Your task to perform on an android device: set the timer Image 0: 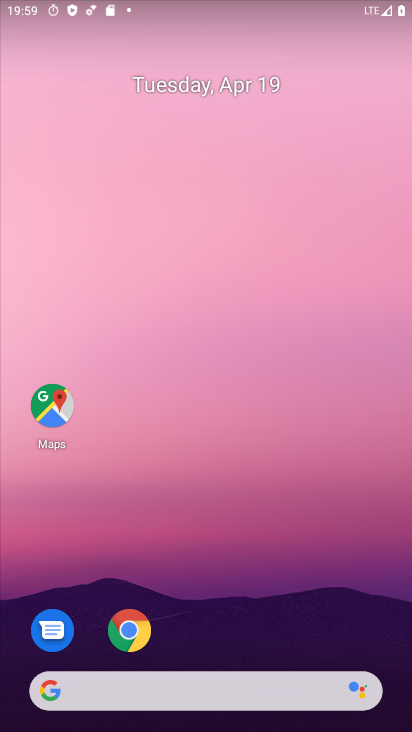
Step 0: drag from (209, 665) to (203, 0)
Your task to perform on an android device: set the timer Image 1: 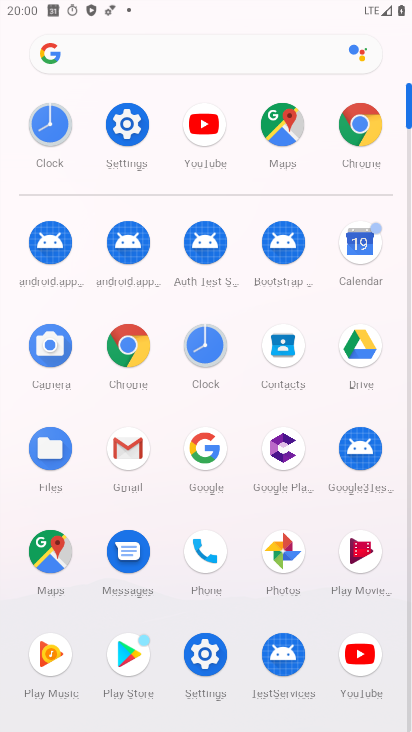
Step 1: click (207, 341)
Your task to perform on an android device: set the timer Image 2: 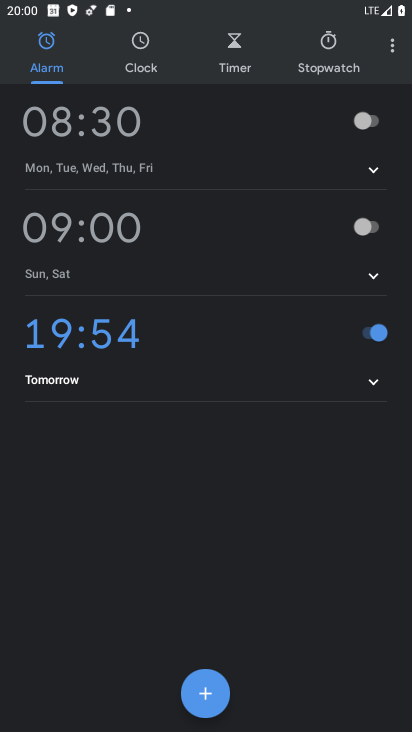
Step 2: click (217, 65)
Your task to perform on an android device: set the timer Image 3: 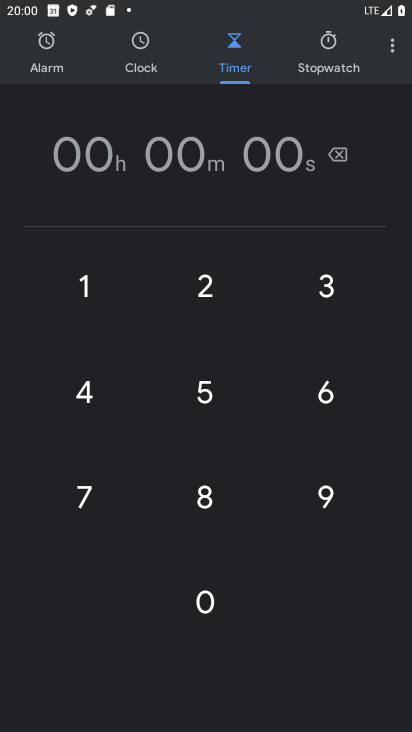
Step 3: click (199, 304)
Your task to perform on an android device: set the timer Image 4: 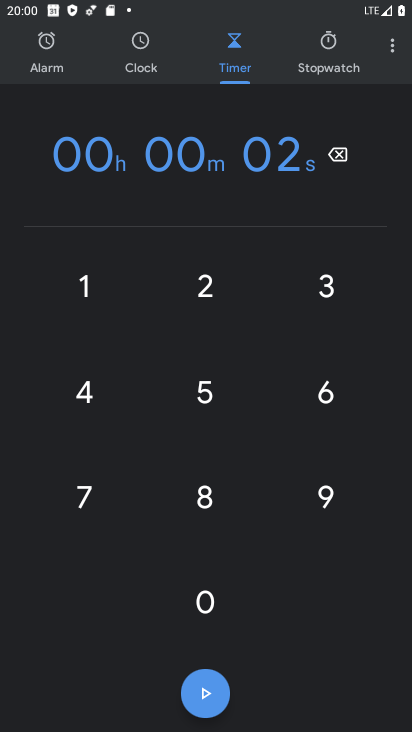
Step 4: task complete